Your task to perform on an android device: Open sound settings Image 0: 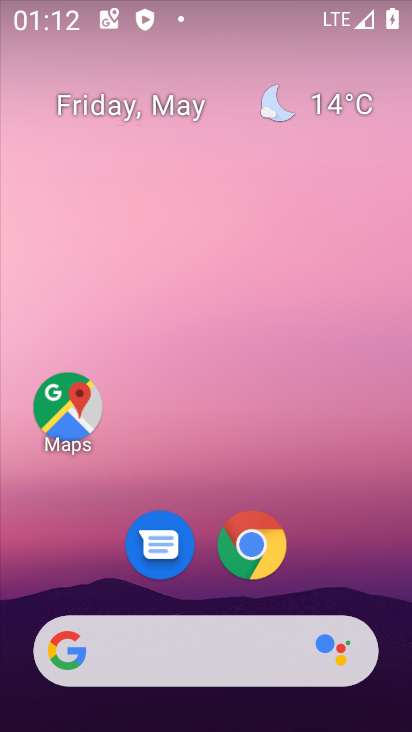
Step 0: drag from (303, 457) to (277, 25)
Your task to perform on an android device: Open sound settings Image 1: 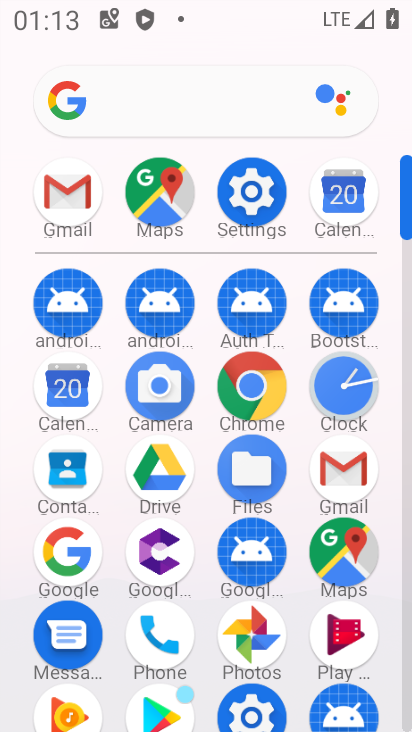
Step 1: click (243, 207)
Your task to perform on an android device: Open sound settings Image 2: 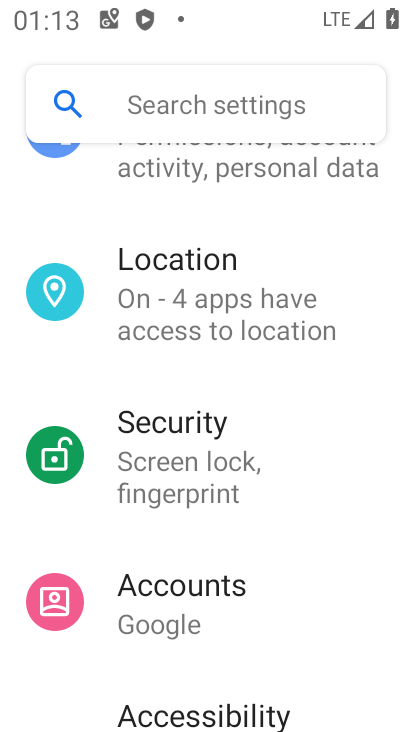
Step 2: drag from (181, 202) to (268, 478)
Your task to perform on an android device: Open sound settings Image 3: 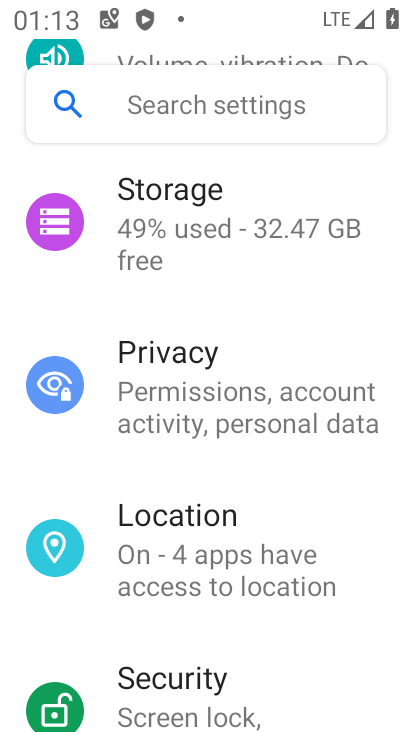
Step 3: drag from (238, 336) to (240, 636)
Your task to perform on an android device: Open sound settings Image 4: 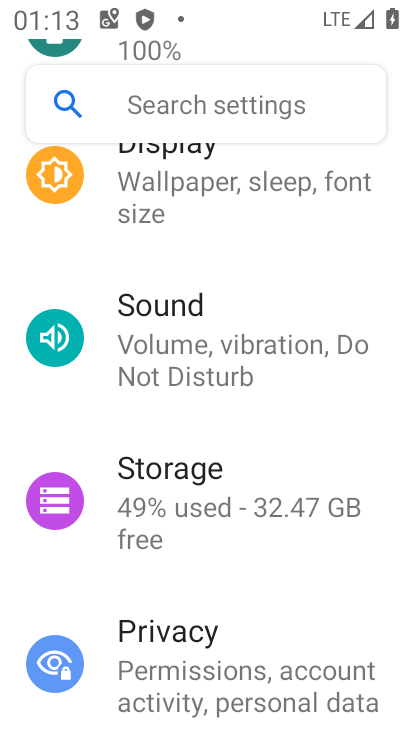
Step 4: click (145, 362)
Your task to perform on an android device: Open sound settings Image 5: 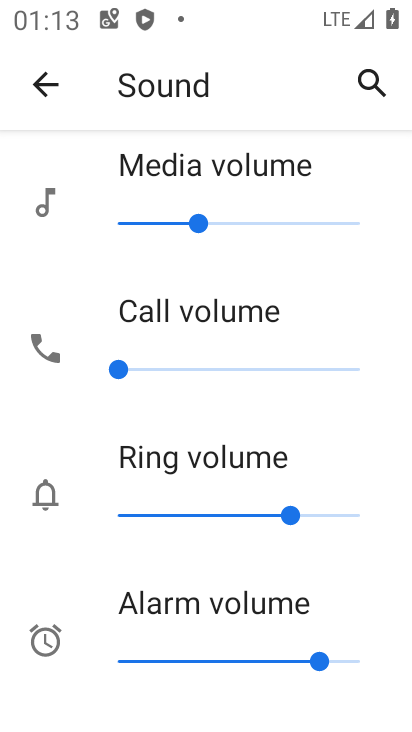
Step 5: task complete